Your task to perform on an android device: turn off wifi Image 0: 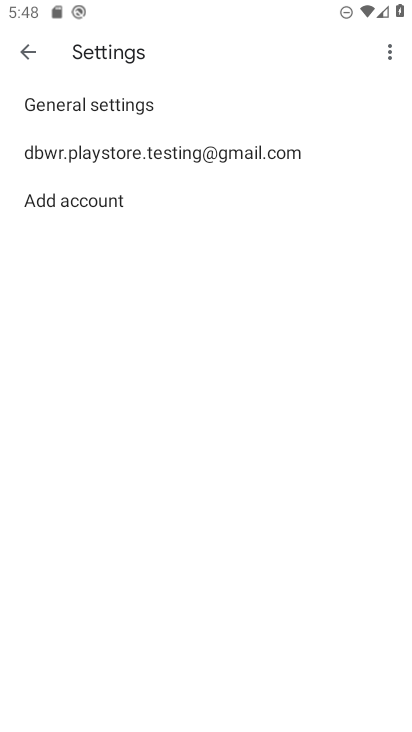
Step 0: press home button
Your task to perform on an android device: turn off wifi Image 1: 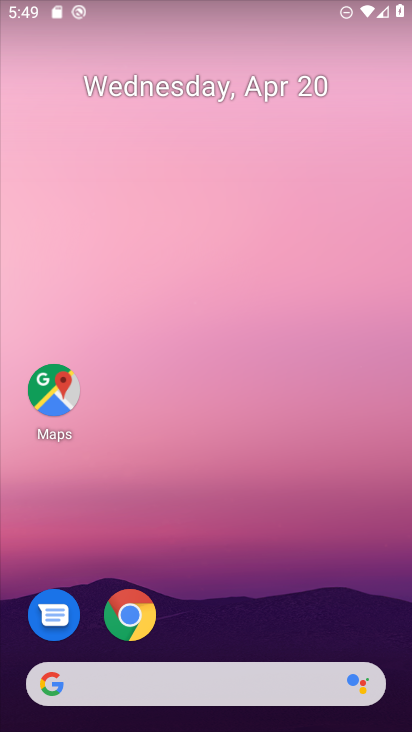
Step 1: drag from (273, 520) to (272, 43)
Your task to perform on an android device: turn off wifi Image 2: 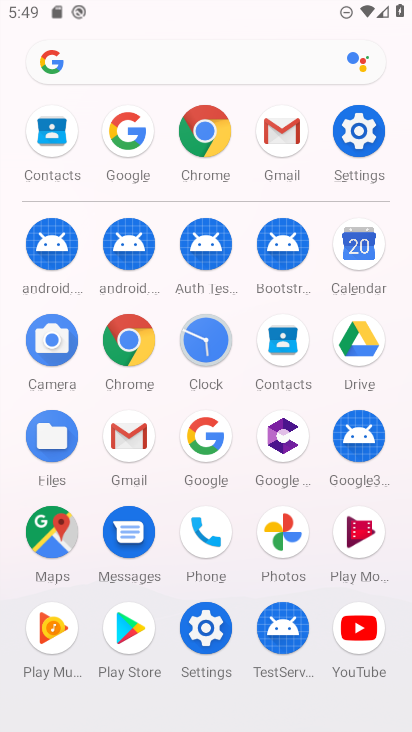
Step 2: click (362, 136)
Your task to perform on an android device: turn off wifi Image 3: 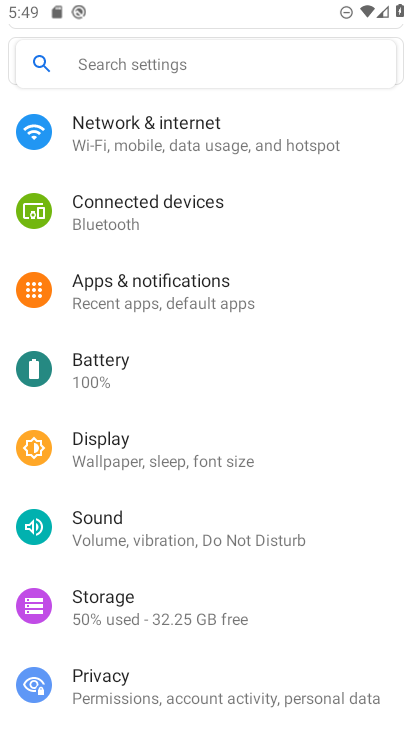
Step 3: click (214, 138)
Your task to perform on an android device: turn off wifi Image 4: 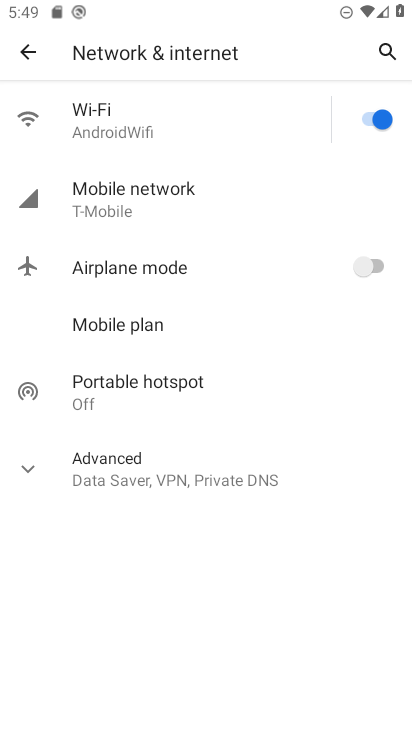
Step 4: click (367, 116)
Your task to perform on an android device: turn off wifi Image 5: 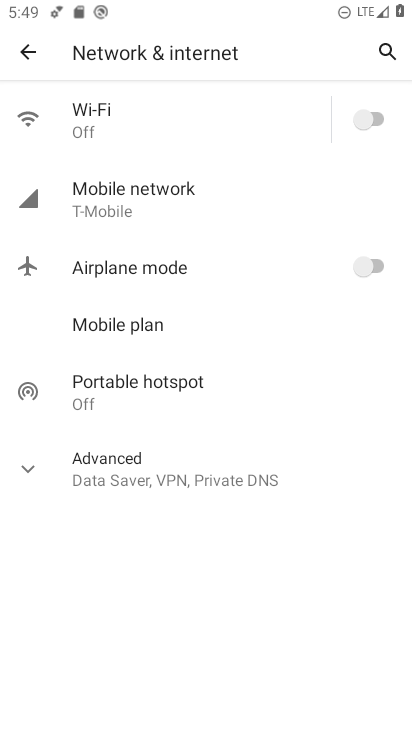
Step 5: task complete